Your task to perform on an android device: When is my next meeting? Image 0: 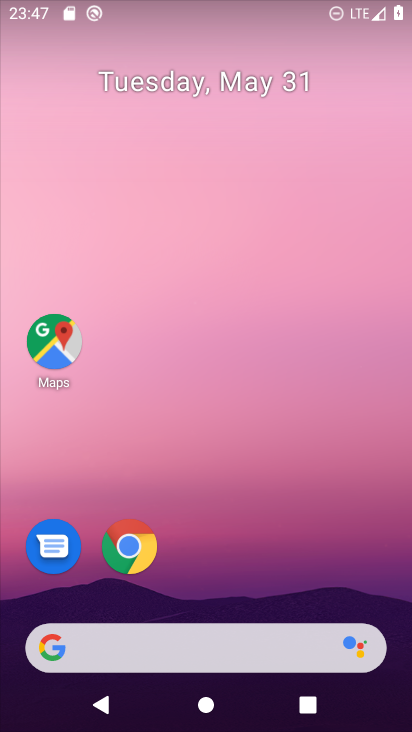
Step 0: drag from (394, 597) to (350, 168)
Your task to perform on an android device: When is my next meeting? Image 1: 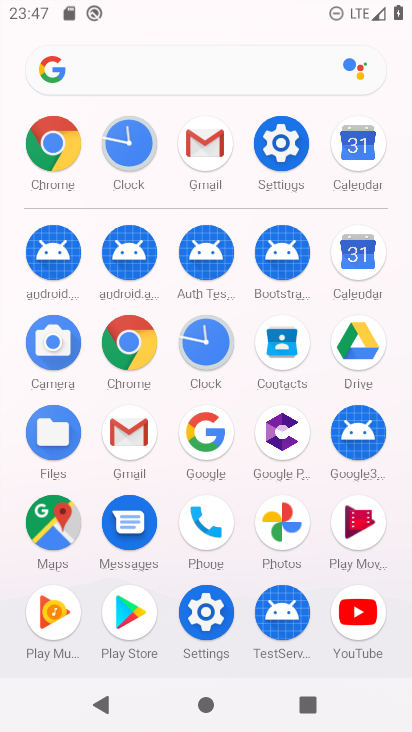
Step 1: click (368, 248)
Your task to perform on an android device: When is my next meeting? Image 2: 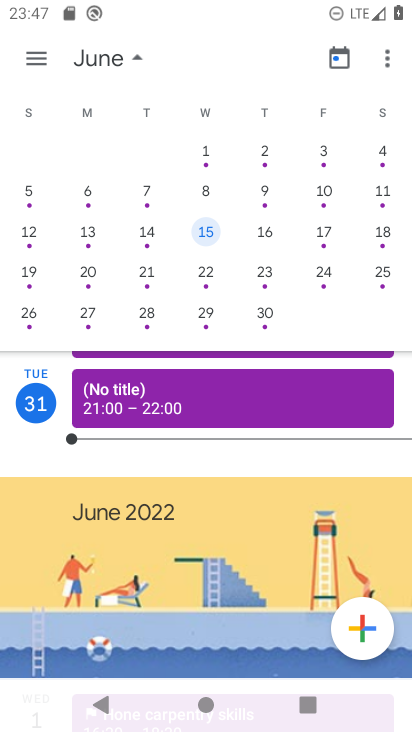
Step 2: drag from (93, 162) to (385, 169)
Your task to perform on an android device: When is my next meeting? Image 3: 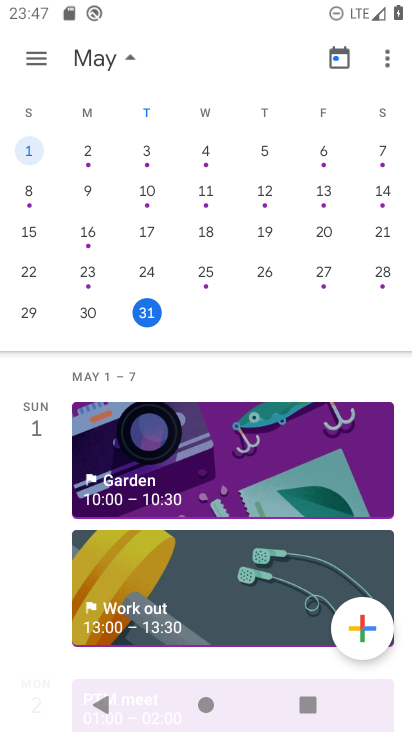
Step 3: click (39, 55)
Your task to perform on an android device: When is my next meeting? Image 4: 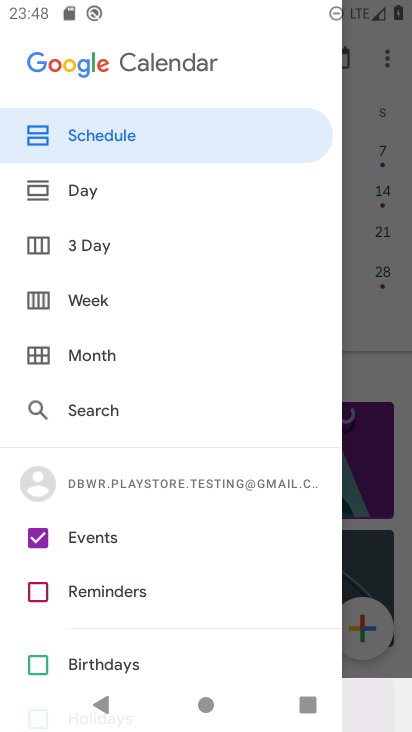
Step 4: click (84, 138)
Your task to perform on an android device: When is my next meeting? Image 5: 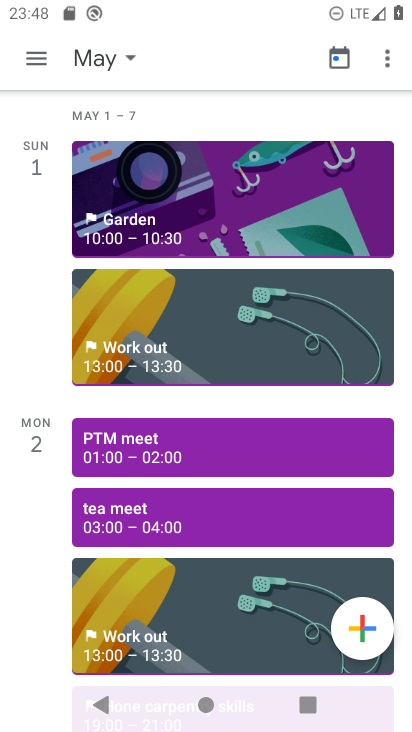
Step 5: click (126, 58)
Your task to perform on an android device: When is my next meeting? Image 6: 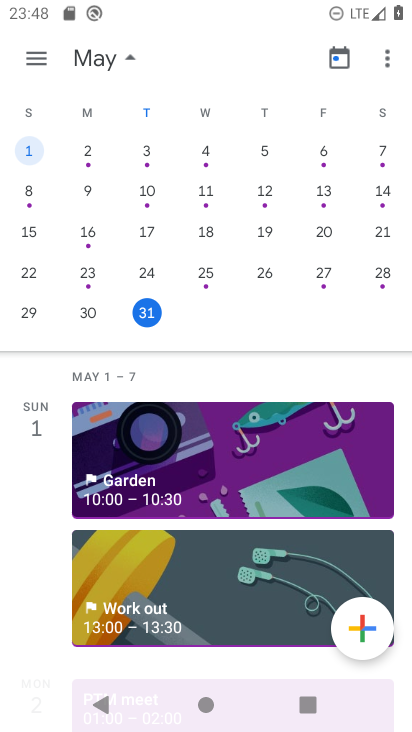
Step 6: click (150, 307)
Your task to perform on an android device: When is my next meeting? Image 7: 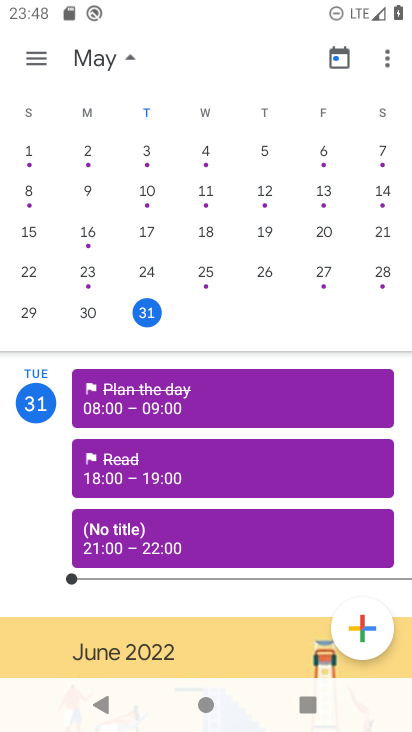
Step 7: task complete